Your task to perform on an android device: Go to network settings Image 0: 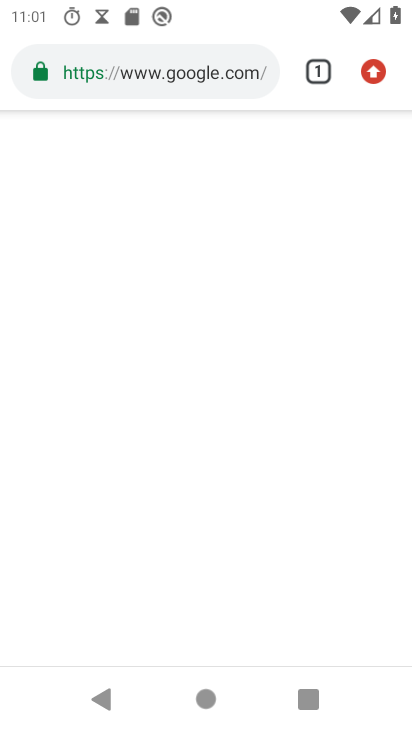
Step 0: press home button
Your task to perform on an android device: Go to network settings Image 1: 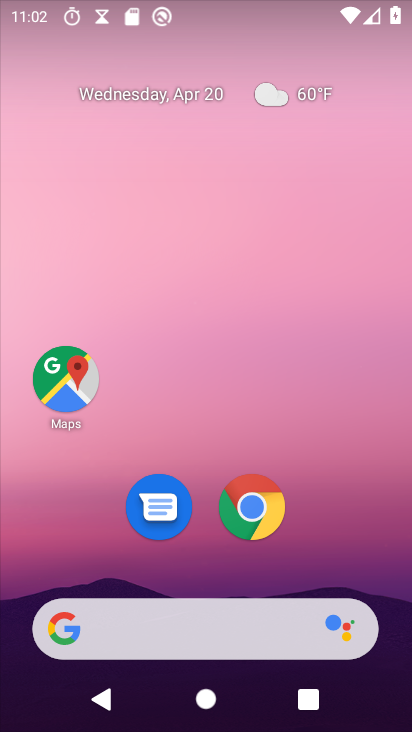
Step 1: drag from (167, 422) to (173, 195)
Your task to perform on an android device: Go to network settings Image 2: 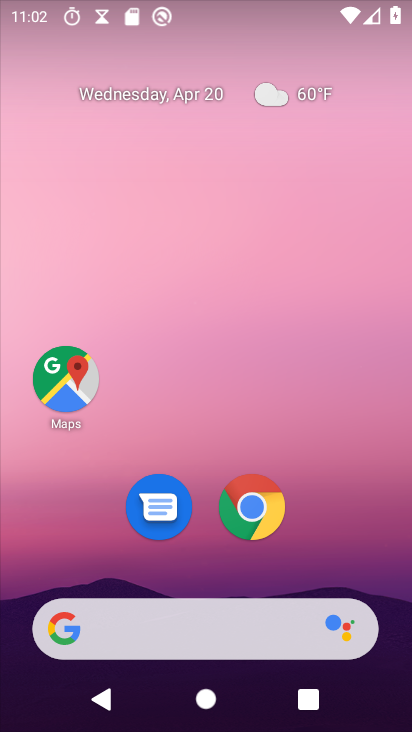
Step 2: drag from (222, 564) to (325, 28)
Your task to perform on an android device: Go to network settings Image 3: 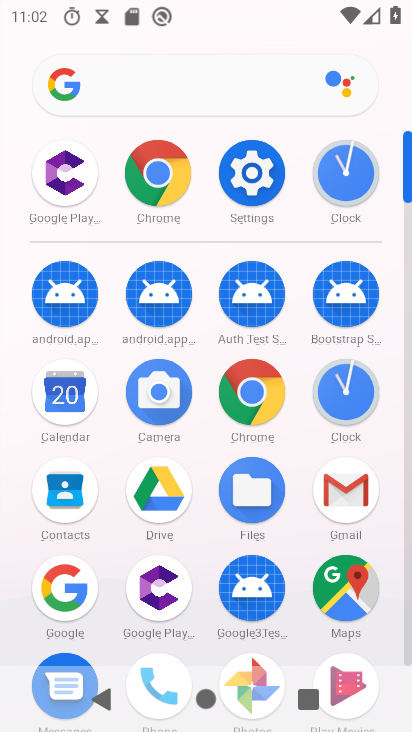
Step 3: click (254, 177)
Your task to perform on an android device: Go to network settings Image 4: 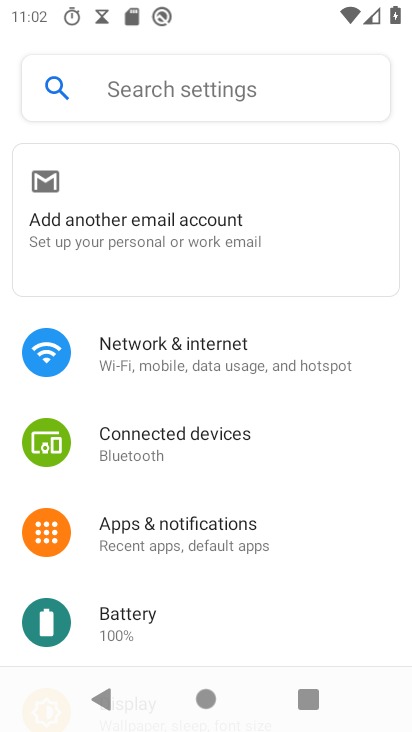
Step 4: click (186, 351)
Your task to perform on an android device: Go to network settings Image 5: 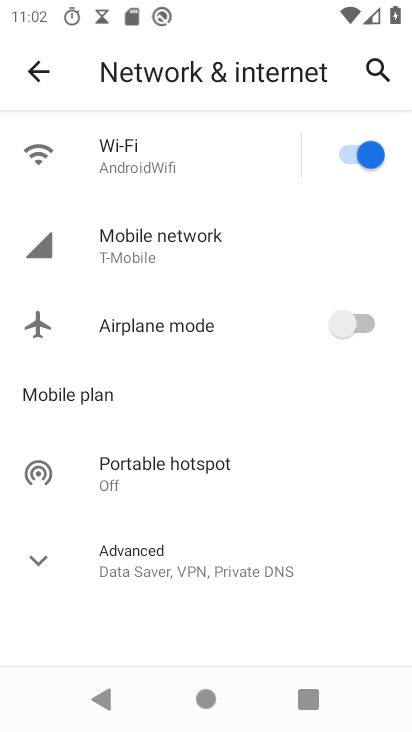
Step 5: task complete